Your task to perform on an android device: see sites visited before in the chrome app Image 0: 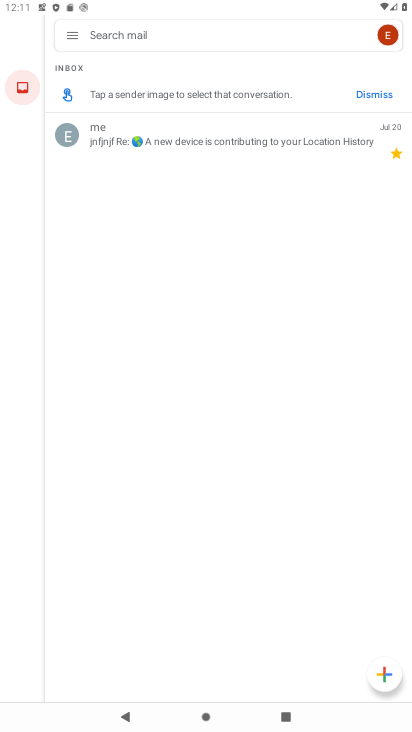
Step 0: press home button
Your task to perform on an android device: see sites visited before in the chrome app Image 1: 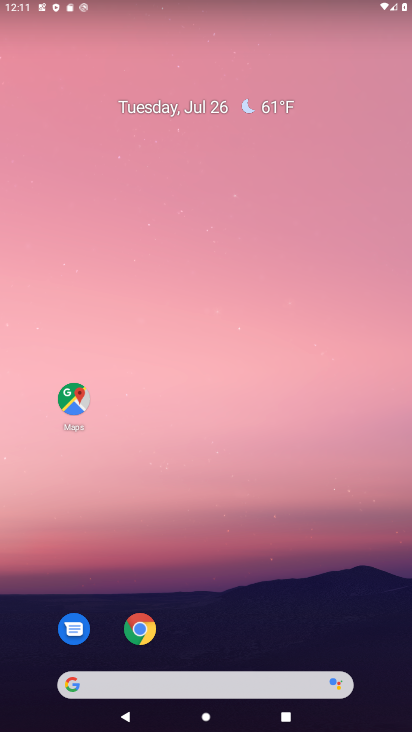
Step 1: click (156, 619)
Your task to perform on an android device: see sites visited before in the chrome app Image 2: 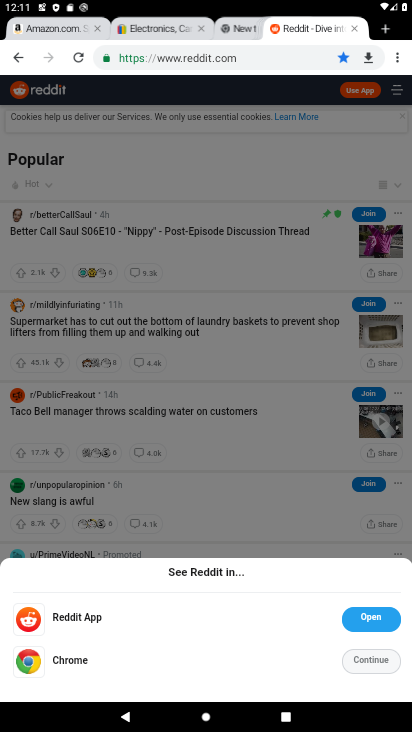
Step 2: task complete